Your task to perform on an android device: check google app version Image 0: 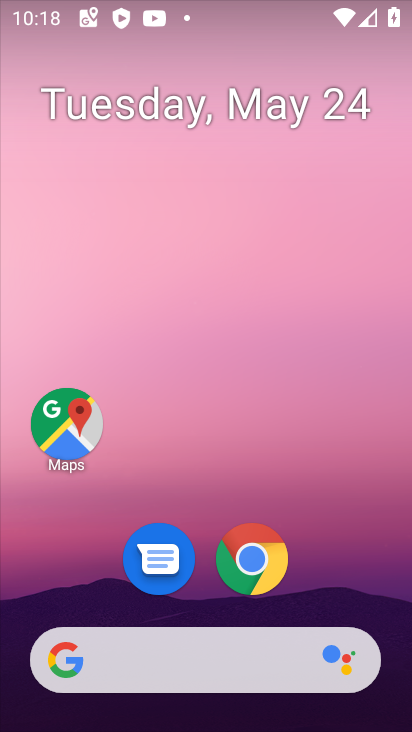
Step 0: drag from (205, 514) to (256, 39)
Your task to perform on an android device: check google app version Image 1: 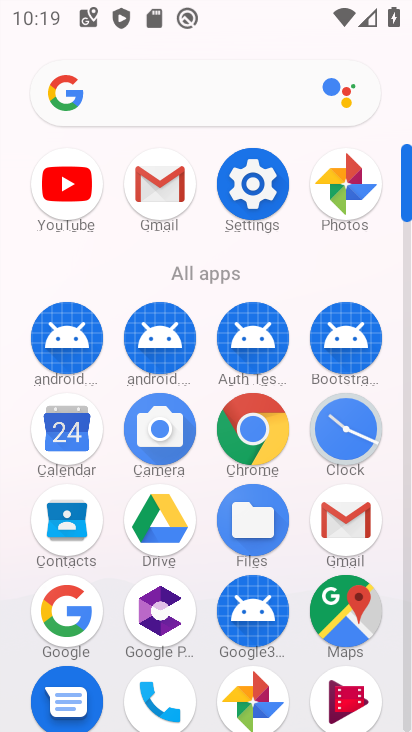
Step 1: drag from (147, 518) to (181, 126)
Your task to perform on an android device: check google app version Image 2: 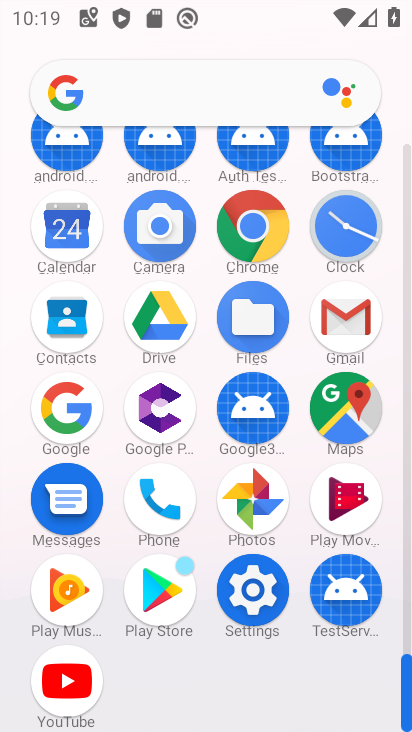
Step 2: click (68, 415)
Your task to perform on an android device: check google app version Image 3: 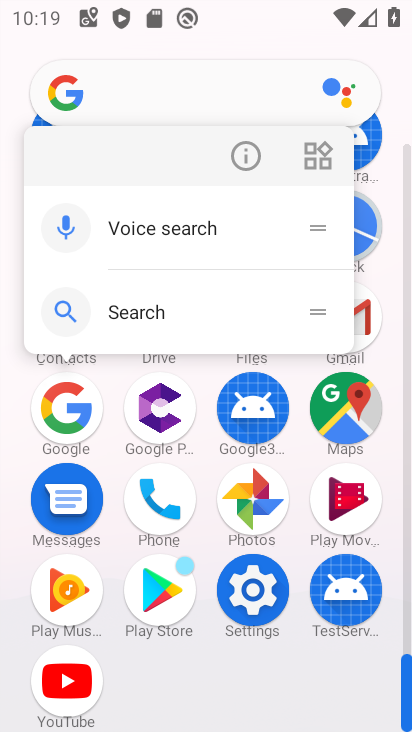
Step 3: click (252, 145)
Your task to perform on an android device: check google app version Image 4: 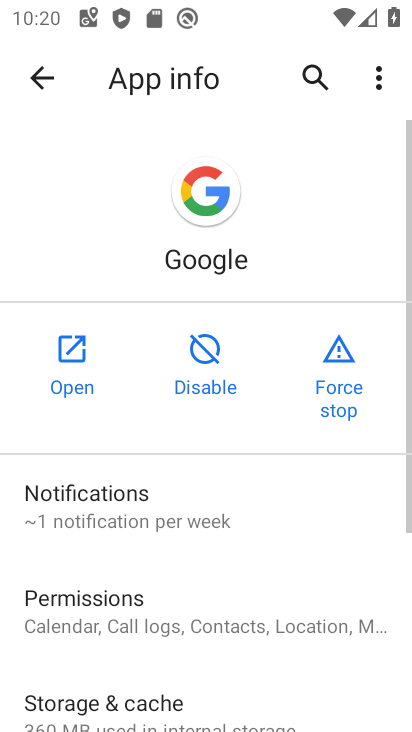
Step 4: drag from (177, 619) to (240, 143)
Your task to perform on an android device: check google app version Image 5: 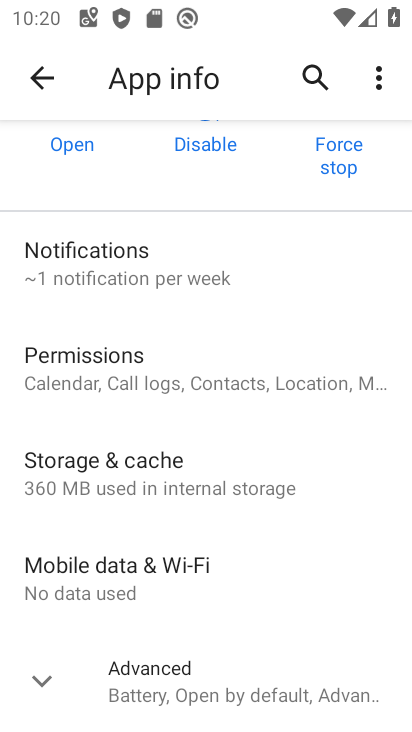
Step 5: drag from (163, 667) to (224, 215)
Your task to perform on an android device: check google app version Image 6: 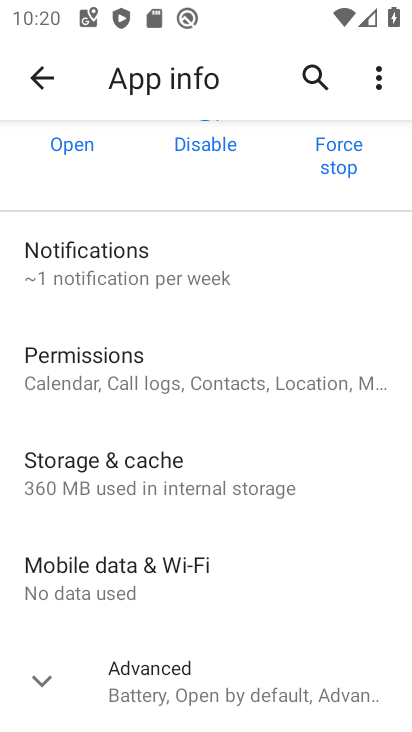
Step 6: drag from (201, 663) to (236, 118)
Your task to perform on an android device: check google app version Image 7: 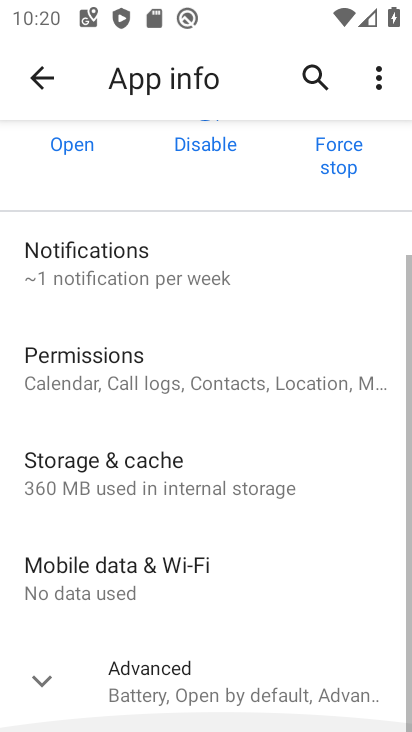
Step 7: click (133, 670)
Your task to perform on an android device: check google app version Image 8: 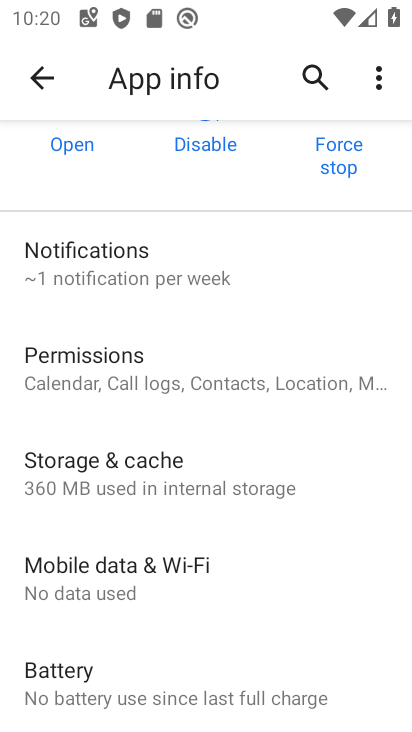
Step 8: task complete